Your task to perform on an android device: Search for flights from Tokyo to Mexico city Image 0: 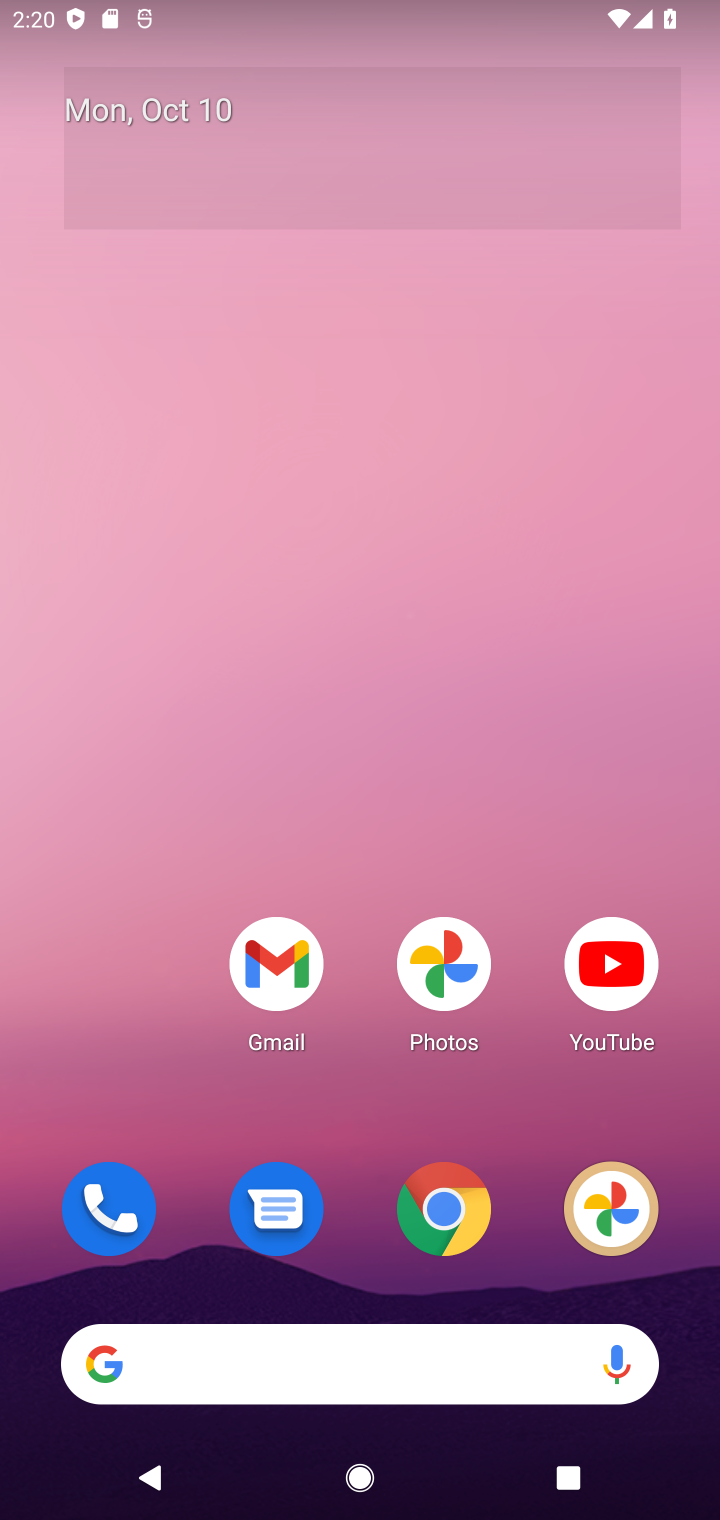
Step 0: click (454, 1230)
Your task to perform on an android device: Search for flights from Tokyo to Mexico city Image 1: 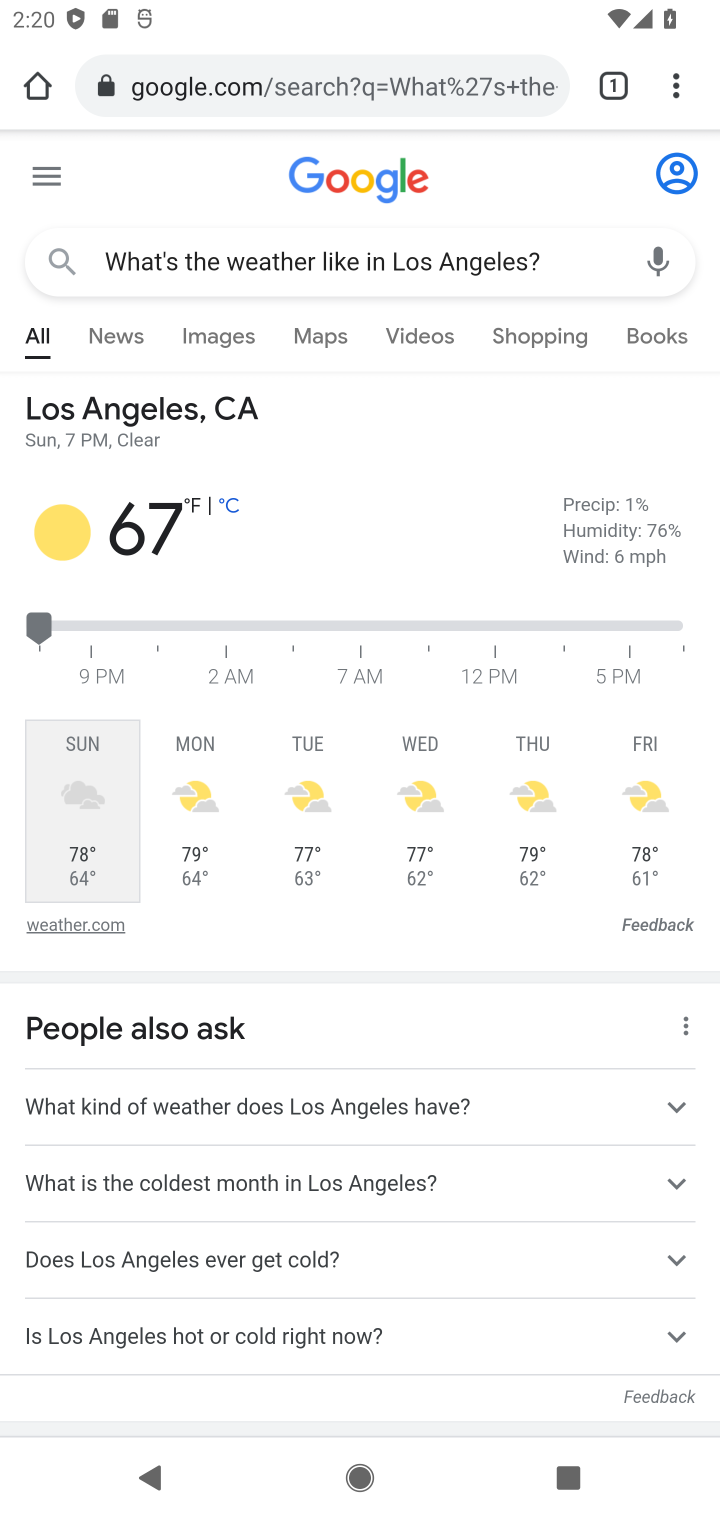
Step 1: click (327, 247)
Your task to perform on an android device: Search for flights from Tokyo to Mexico city Image 2: 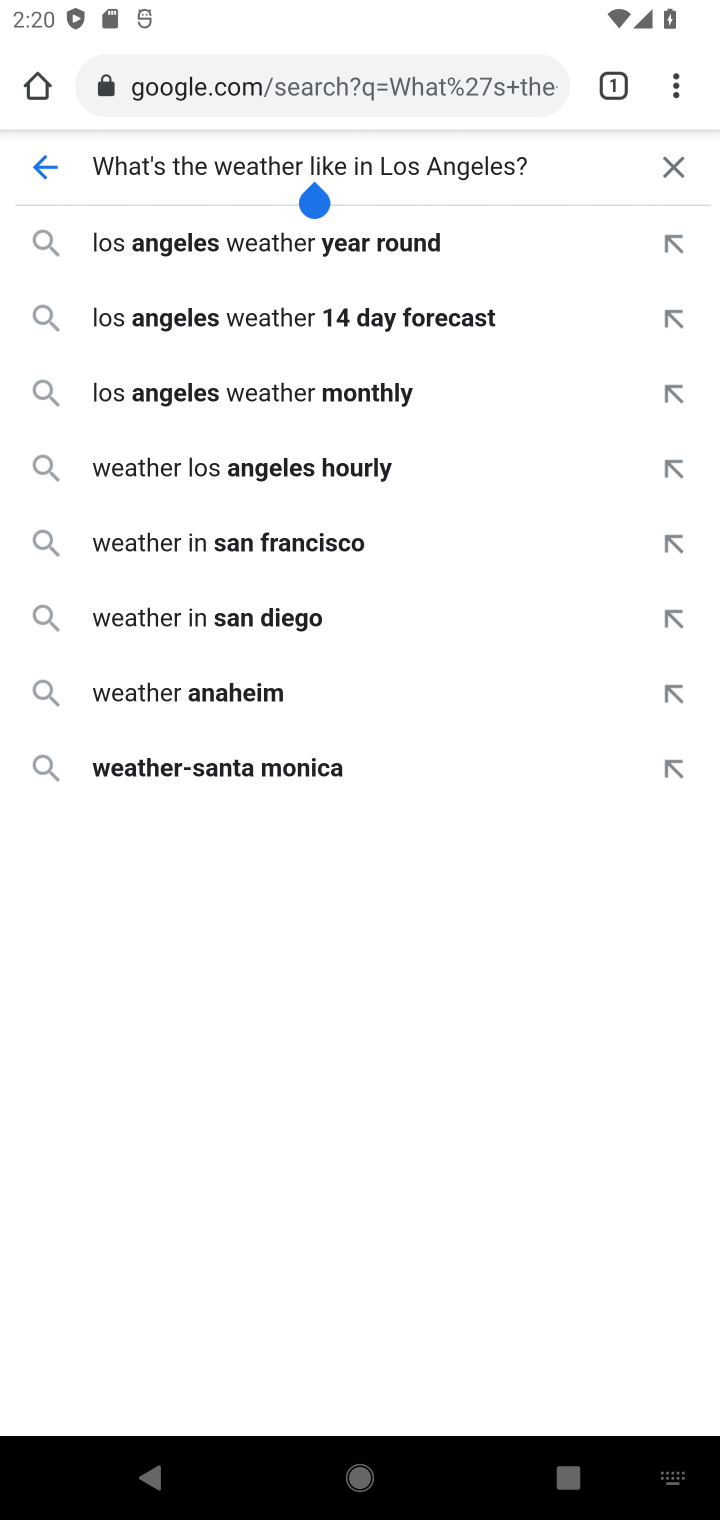
Step 2: click (673, 169)
Your task to perform on an android device: Search for flights from Tokyo to Mexico city Image 3: 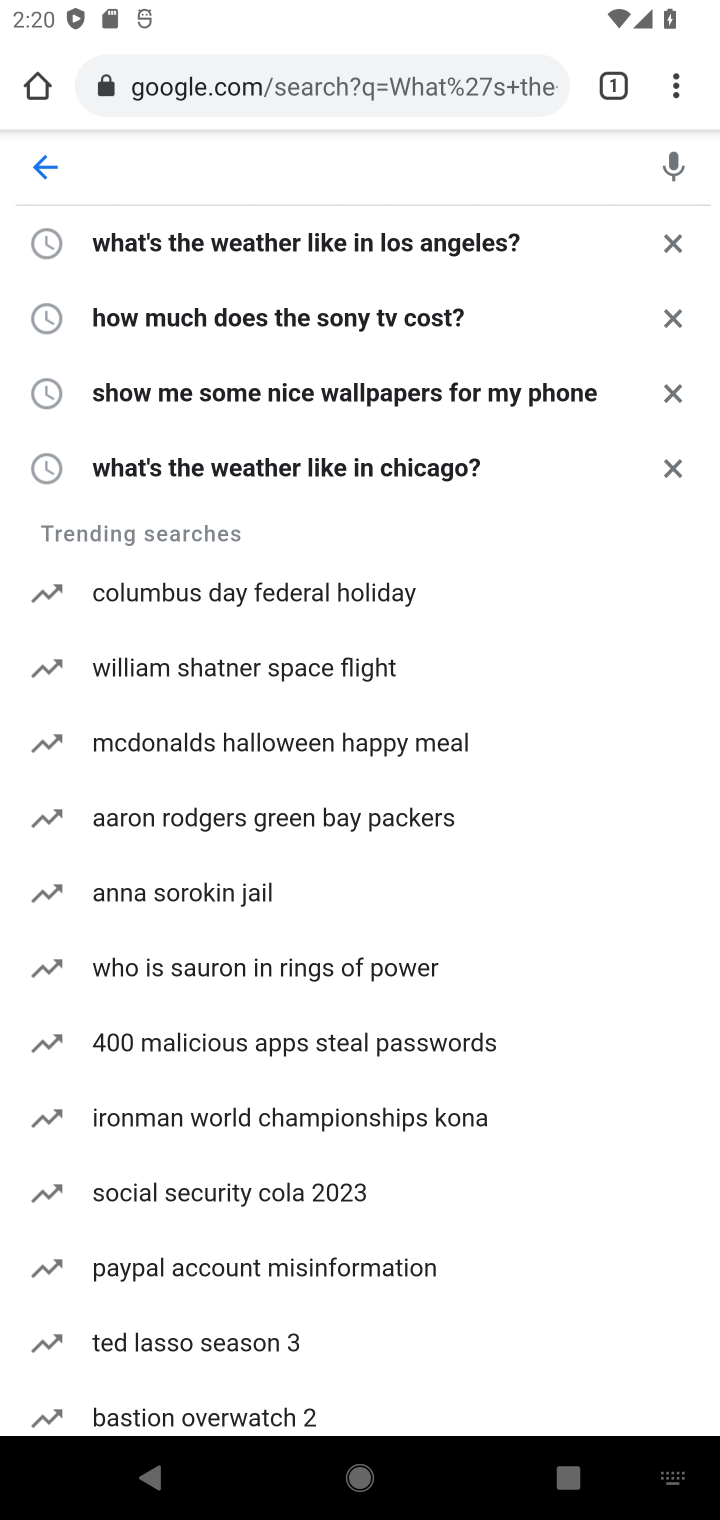
Step 3: click (373, 143)
Your task to perform on an android device: Search for flights from Tokyo to Mexico city Image 4: 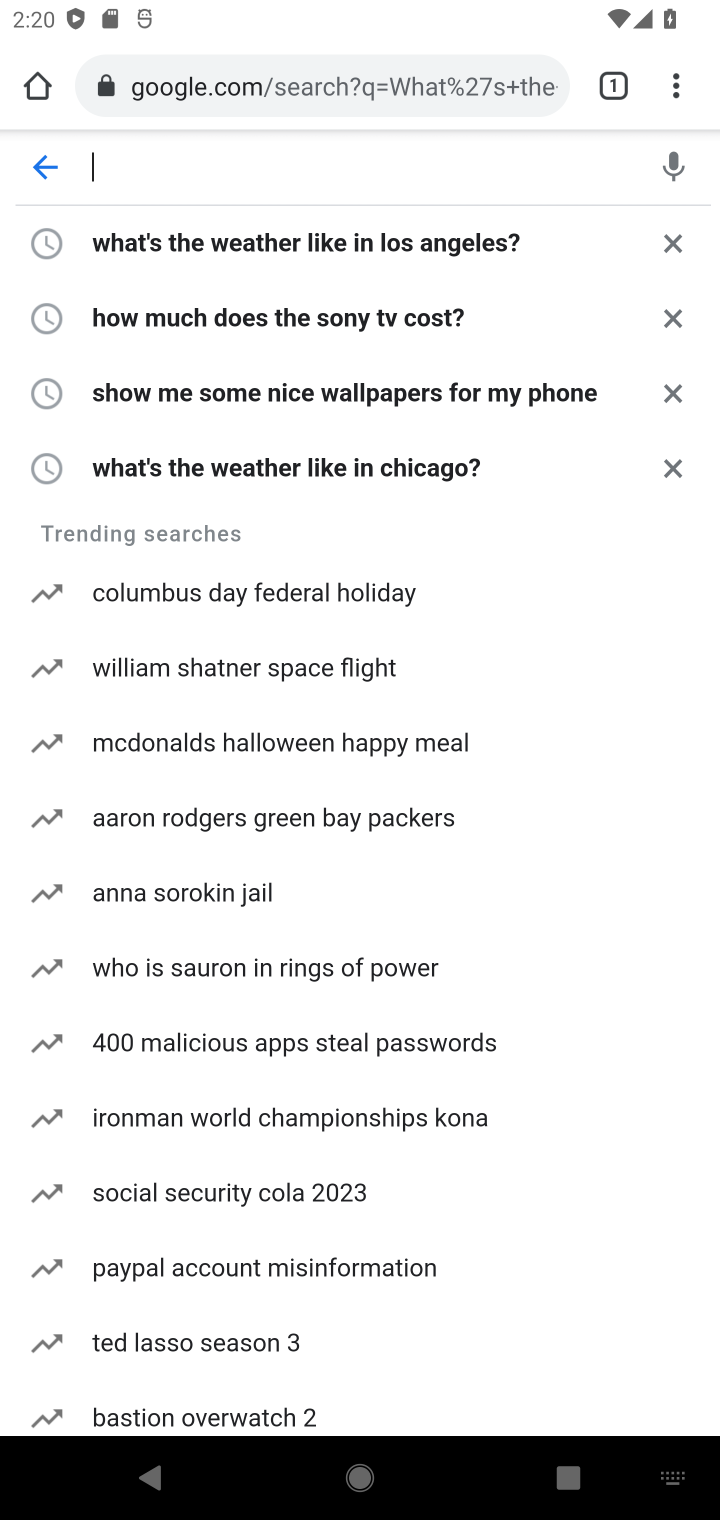
Step 4: type "flights from Tokyo to Mexico city"
Your task to perform on an android device: Search for flights from Tokyo to Mexico city Image 5: 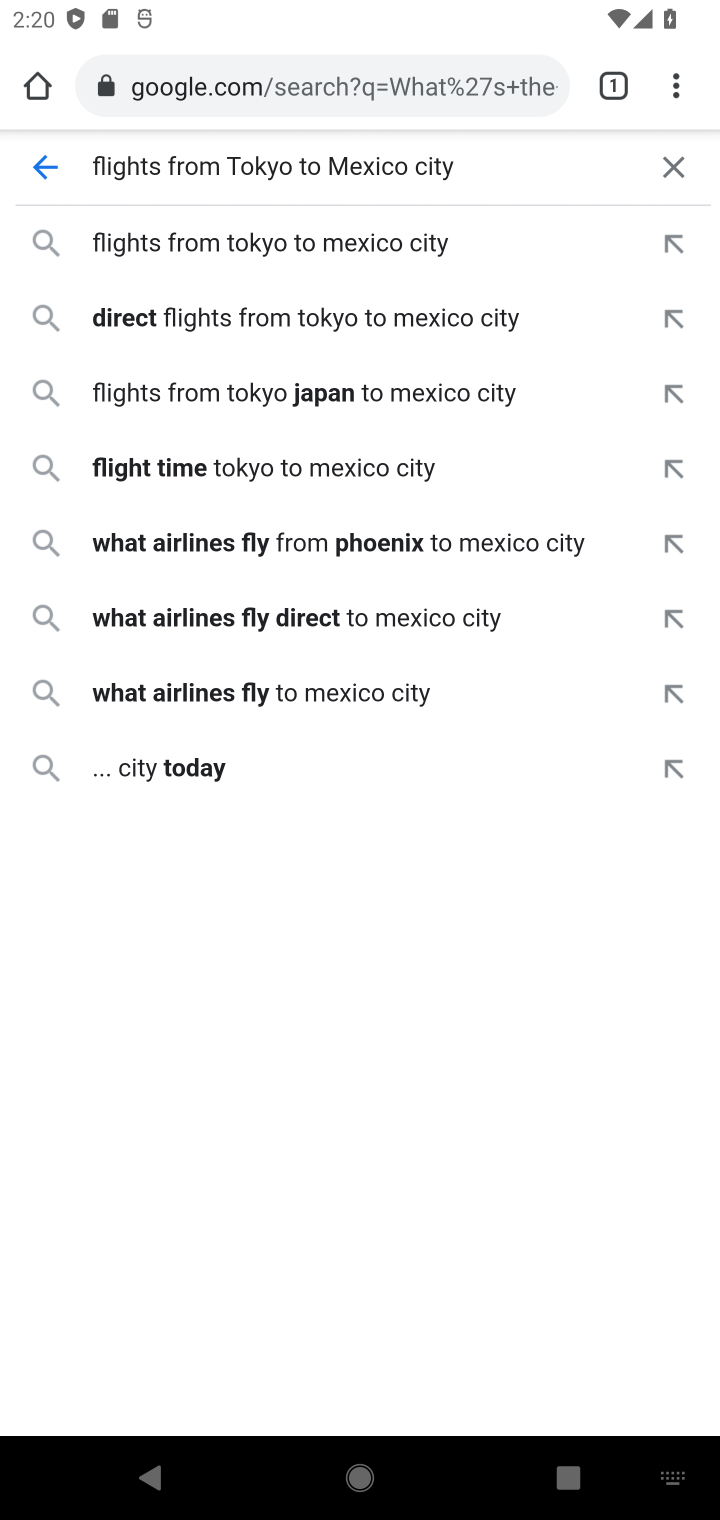
Step 5: click (313, 244)
Your task to perform on an android device: Search for flights from Tokyo to Mexico city Image 6: 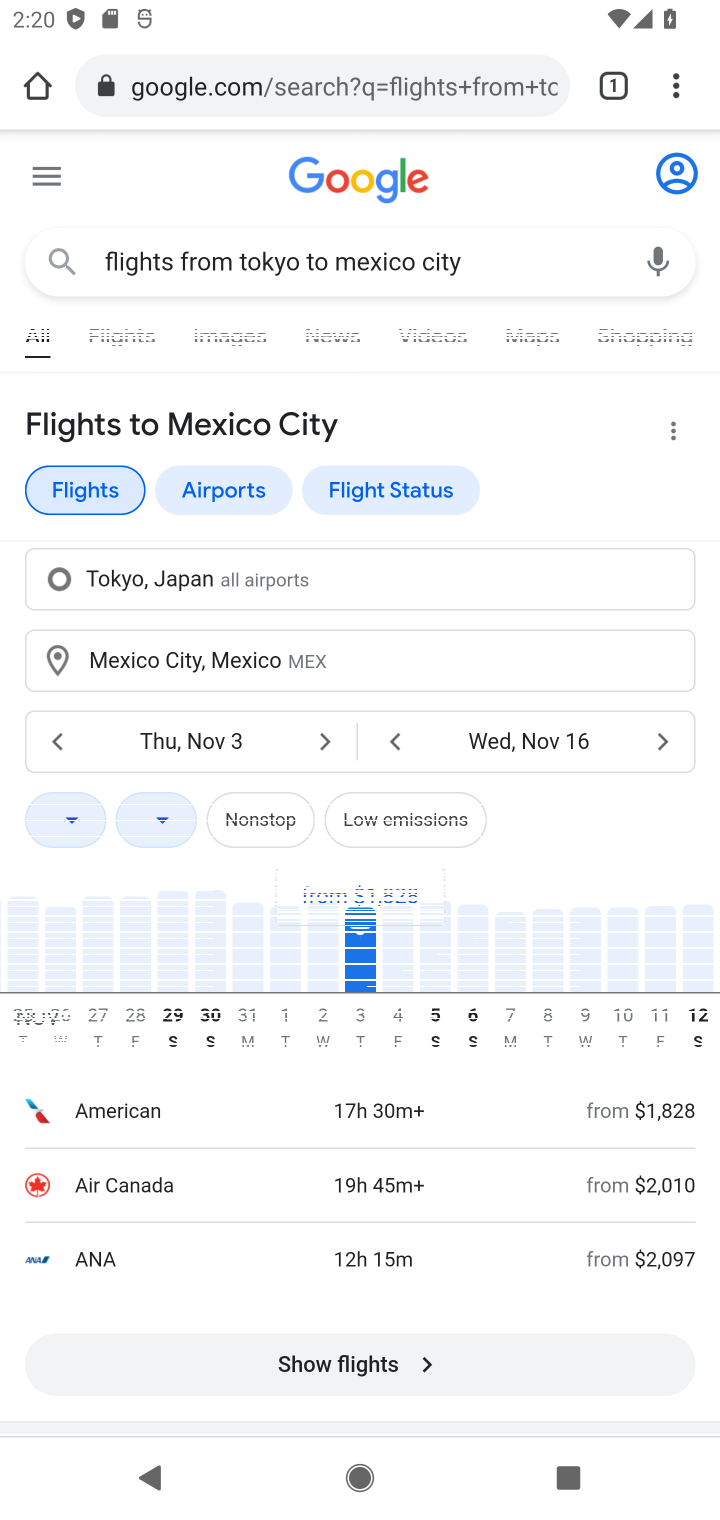
Step 6: task complete